Your task to perform on an android device: Go to eBay Image 0: 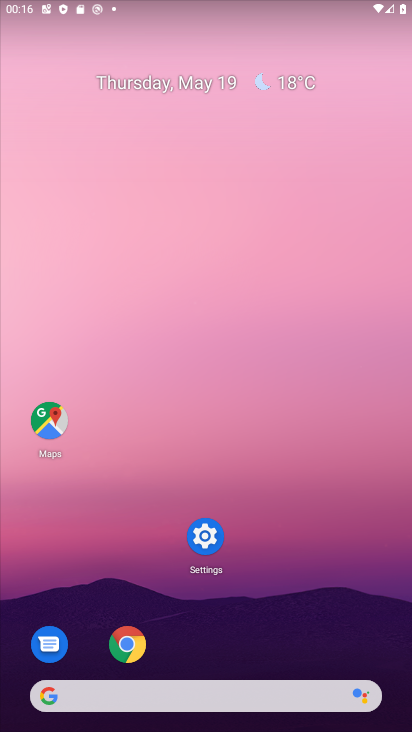
Step 0: click (125, 646)
Your task to perform on an android device: Go to eBay Image 1: 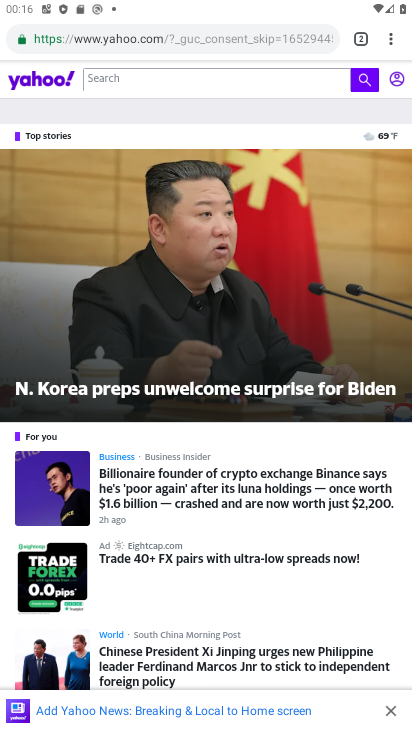
Step 1: click (239, 42)
Your task to perform on an android device: Go to eBay Image 2: 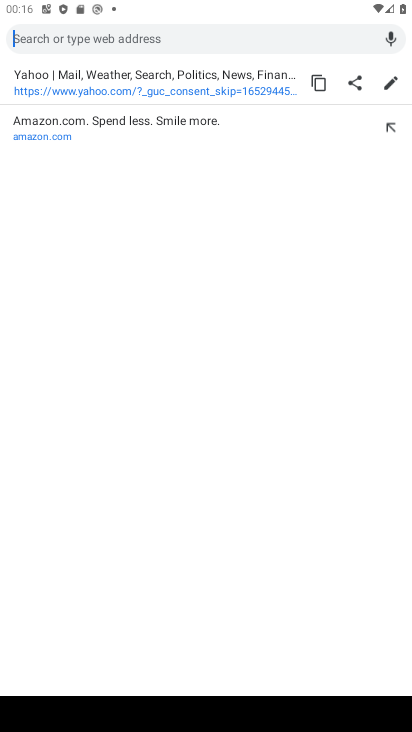
Step 2: type "ebay"
Your task to perform on an android device: Go to eBay Image 3: 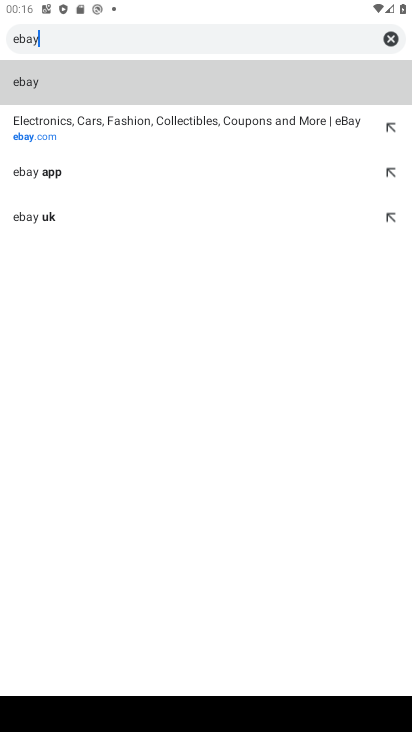
Step 3: click (38, 127)
Your task to perform on an android device: Go to eBay Image 4: 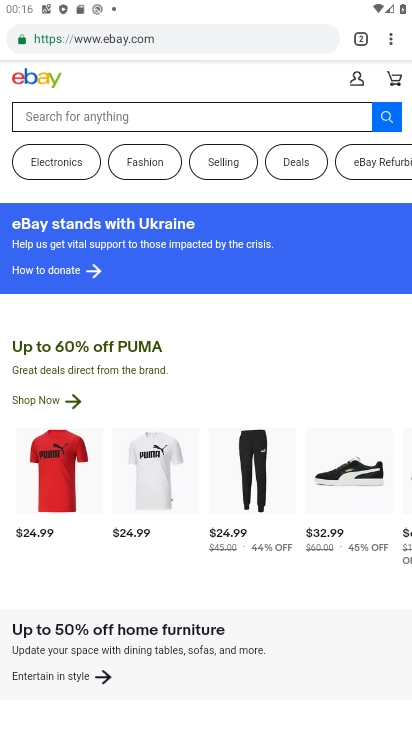
Step 4: task complete